Your task to perform on an android device: turn on sleep mode Image 0: 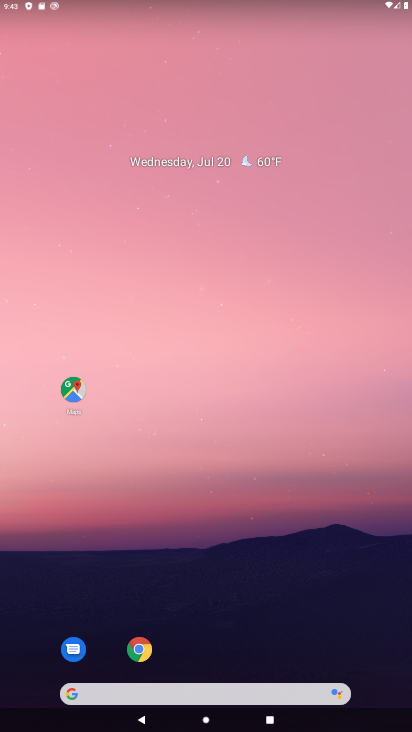
Step 0: drag from (345, 4) to (271, 497)
Your task to perform on an android device: turn on sleep mode Image 1: 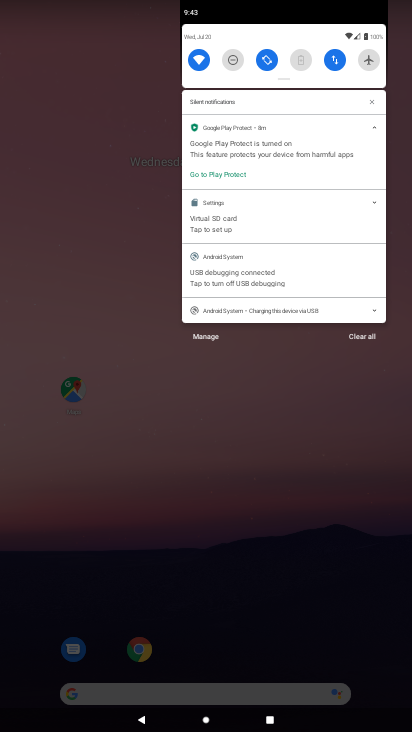
Step 1: task complete